Your task to perform on an android device: turn on the 12-hour format for clock Image 0: 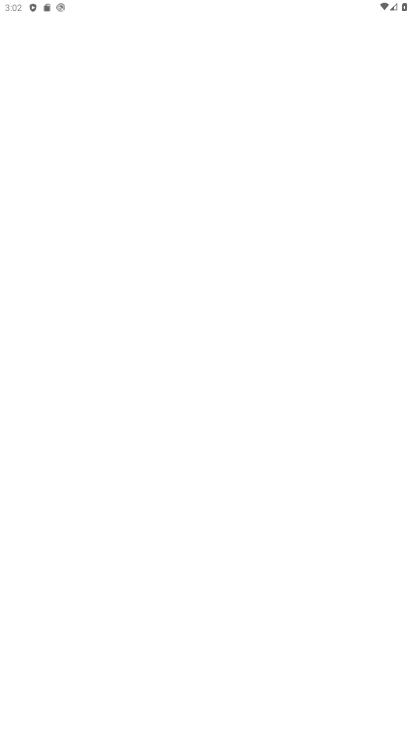
Step 0: press home button
Your task to perform on an android device: turn on the 12-hour format for clock Image 1: 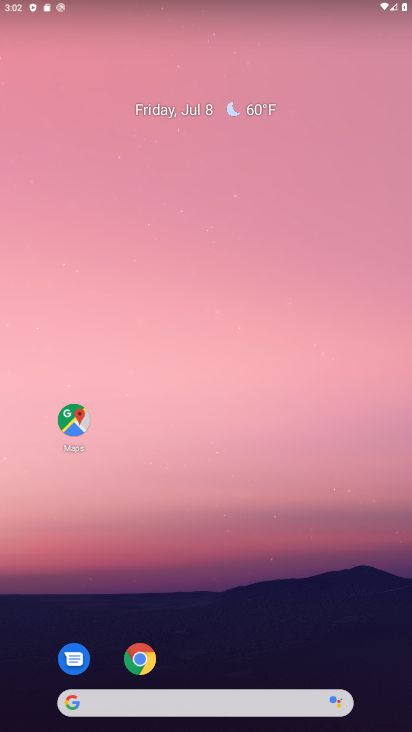
Step 1: drag from (229, 637) to (268, 178)
Your task to perform on an android device: turn on the 12-hour format for clock Image 2: 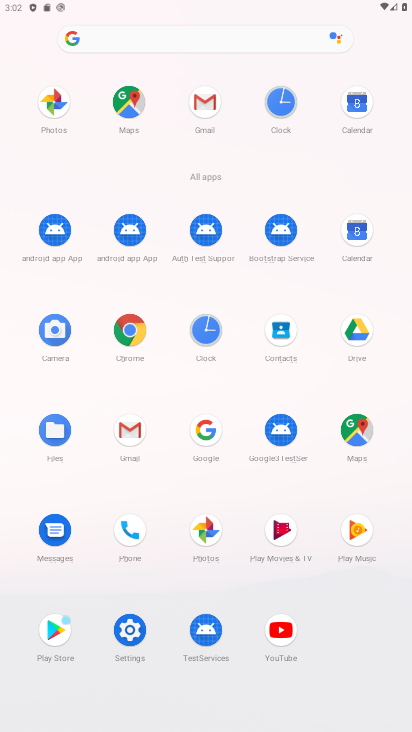
Step 2: click (202, 332)
Your task to perform on an android device: turn on the 12-hour format for clock Image 3: 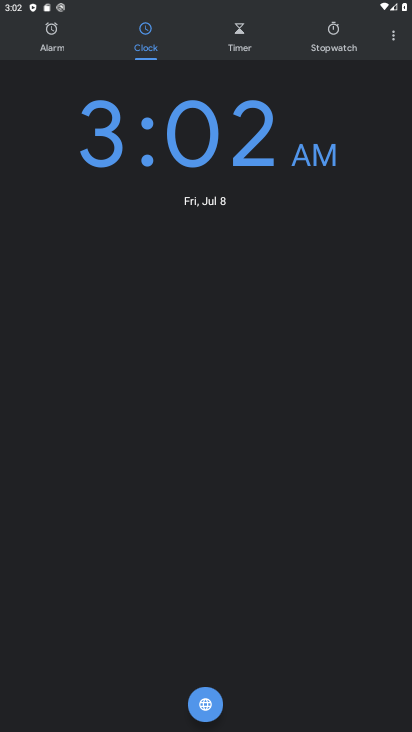
Step 3: click (390, 39)
Your task to perform on an android device: turn on the 12-hour format for clock Image 4: 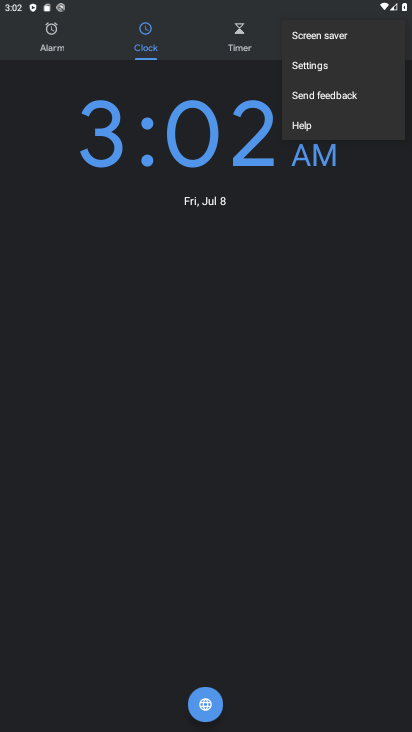
Step 4: click (320, 63)
Your task to perform on an android device: turn on the 12-hour format for clock Image 5: 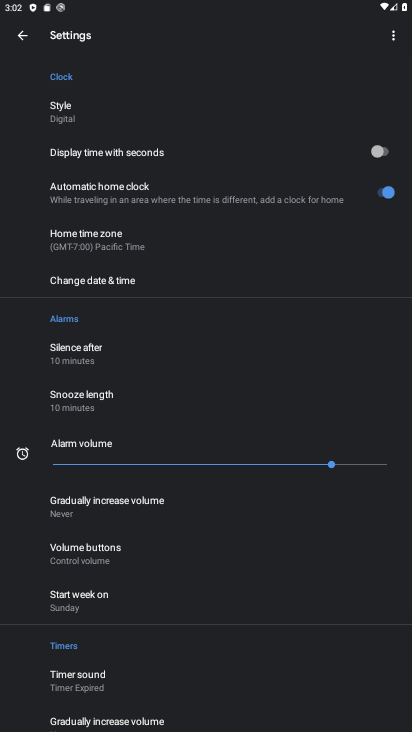
Step 5: click (106, 278)
Your task to perform on an android device: turn on the 12-hour format for clock Image 6: 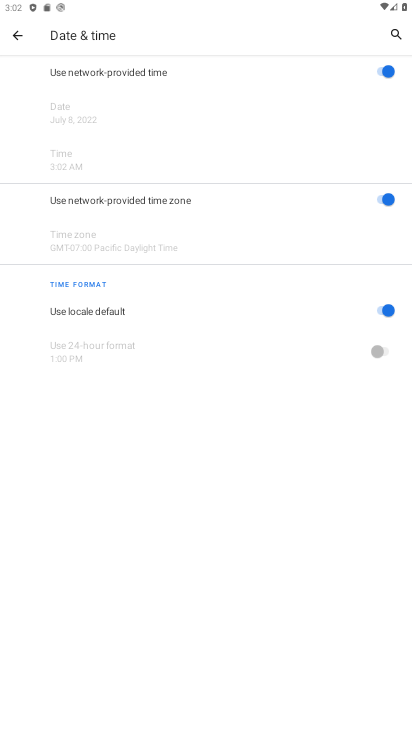
Step 6: task complete